Your task to perform on an android device: Search for sushi restaurants on Maps Image 0: 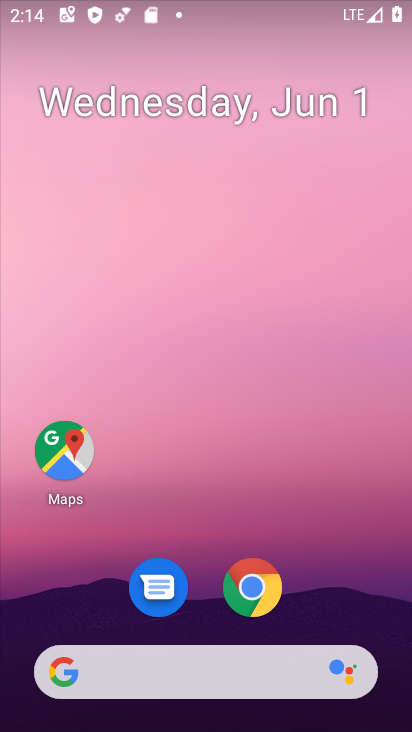
Step 0: press home button
Your task to perform on an android device: Search for sushi restaurants on Maps Image 1: 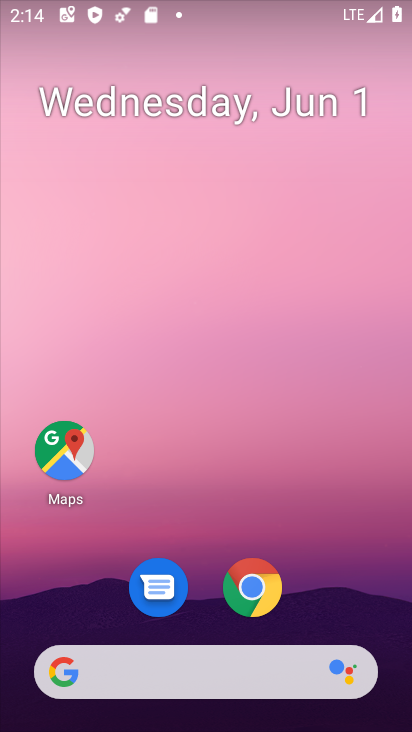
Step 1: click (62, 455)
Your task to perform on an android device: Search for sushi restaurants on Maps Image 2: 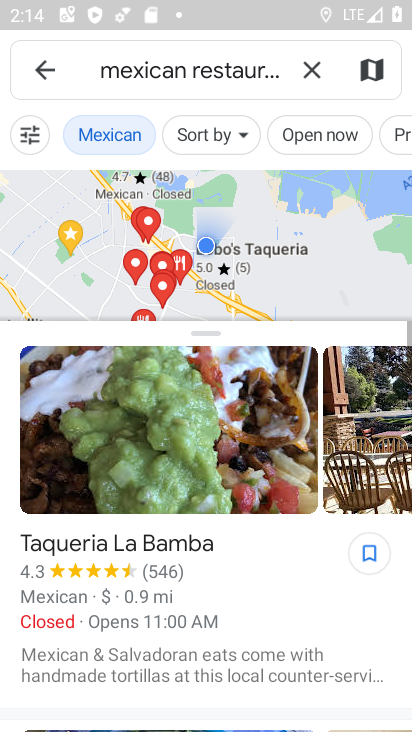
Step 2: click (312, 74)
Your task to perform on an android device: Search for sushi restaurants on Maps Image 3: 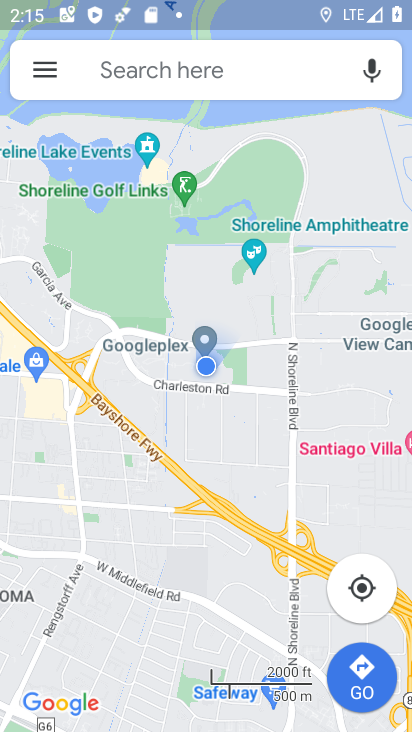
Step 3: click (195, 72)
Your task to perform on an android device: Search for sushi restaurants on Maps Image 4: 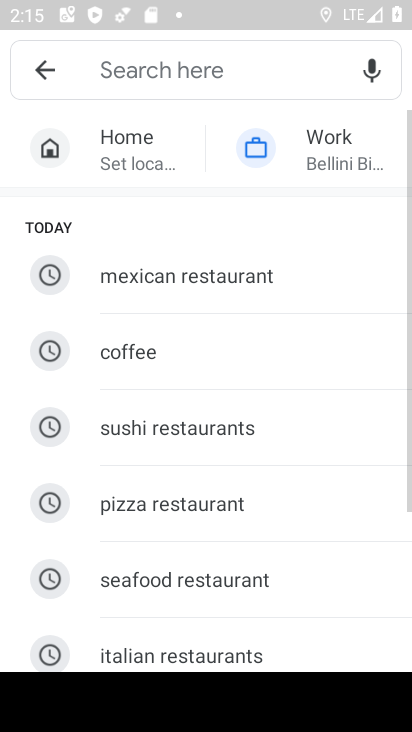
Step 4: click (316, 426)
Your task to perform on an android device: Search for sushi restaurants on Maps Image 5: 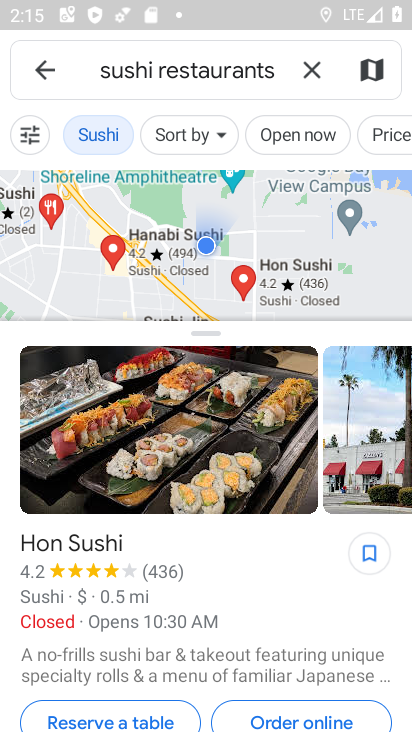
Step 5: task complete